Your task to perform on an android device: set an alarm Image 0: 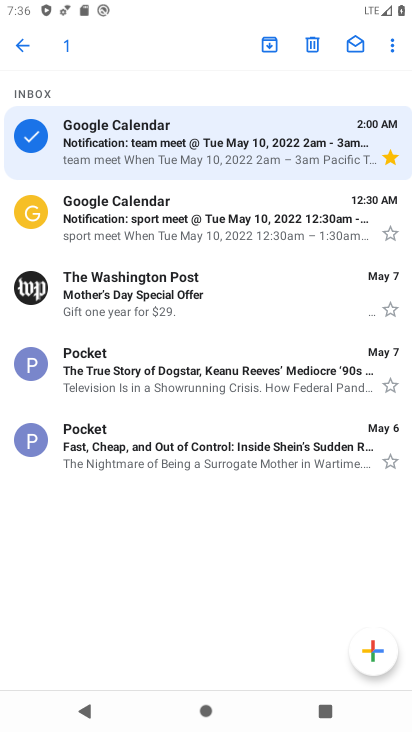
Step 0: press home button
Your task to perform on an android device: set an alarm Image 1: 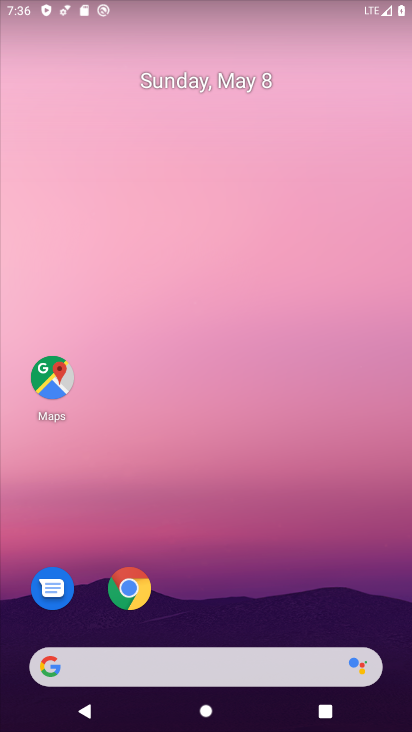
Step 1: drag from (183, 667) to (334, 85)
Your task to perform on an android device: set an alarm Image 2: 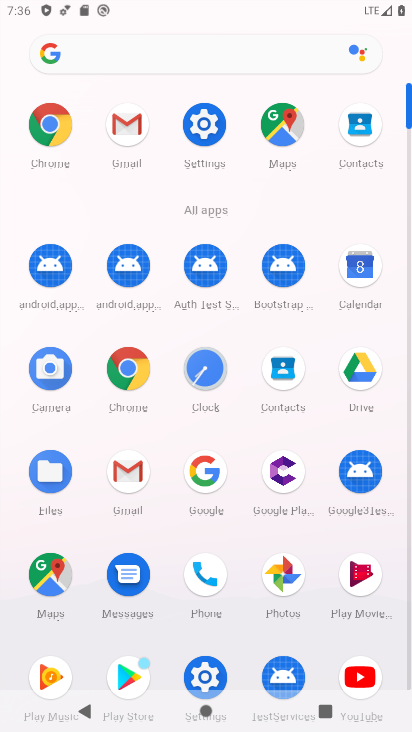
Step 2: click (204, 378)
Your task to perform on an android device: set an alarm Image 3: 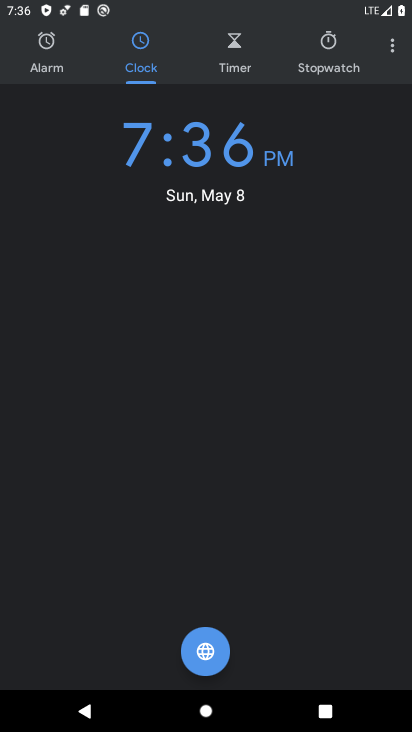
Step 3: click (52, 66)
Your task to perform on an android device: set an alarm Image 4: 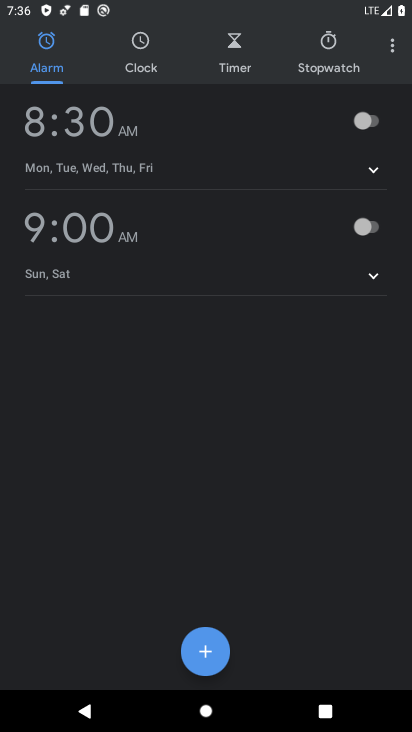
Step 4: click (103, 133)
Your task to perform on an android device: set an alarm Image 5: 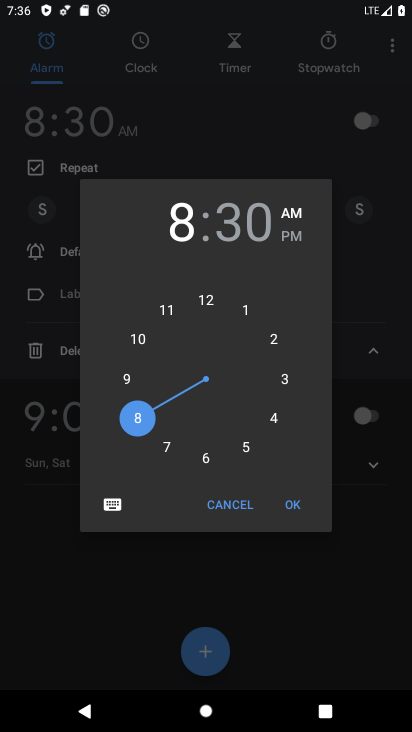
Step 5: click (124, 376)
Your task to perform on an android device: set an alarm Image 6: 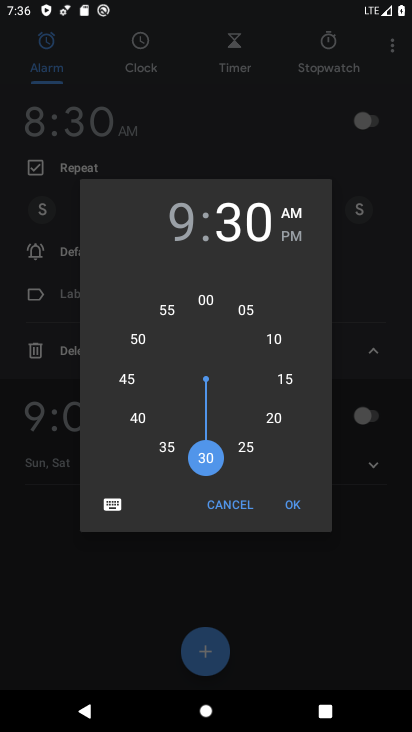
Step 6: click (300, 510)
Your task to perform on an android device: set an alarm Image 7: 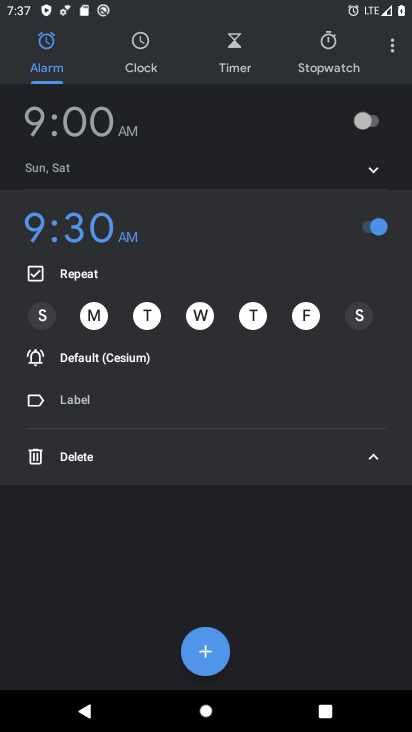
Step 7: task complete